Your task to perform on an android device: Search for flights from NYC to San Francisco Image 0: 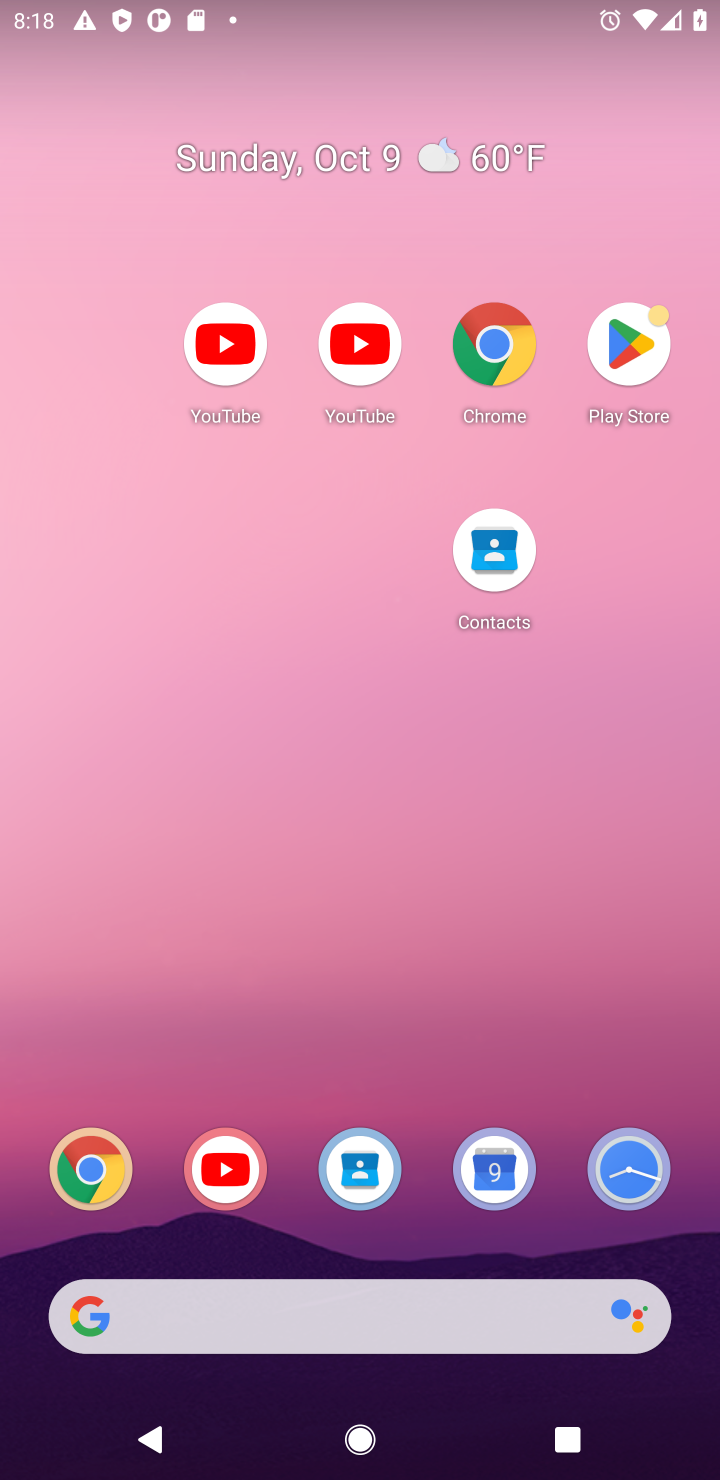
Step 0: drag from (414, 1268) to (464, 294)
Your task to perform on an android device: Search for flights from NYC to San Francisco Image 1: 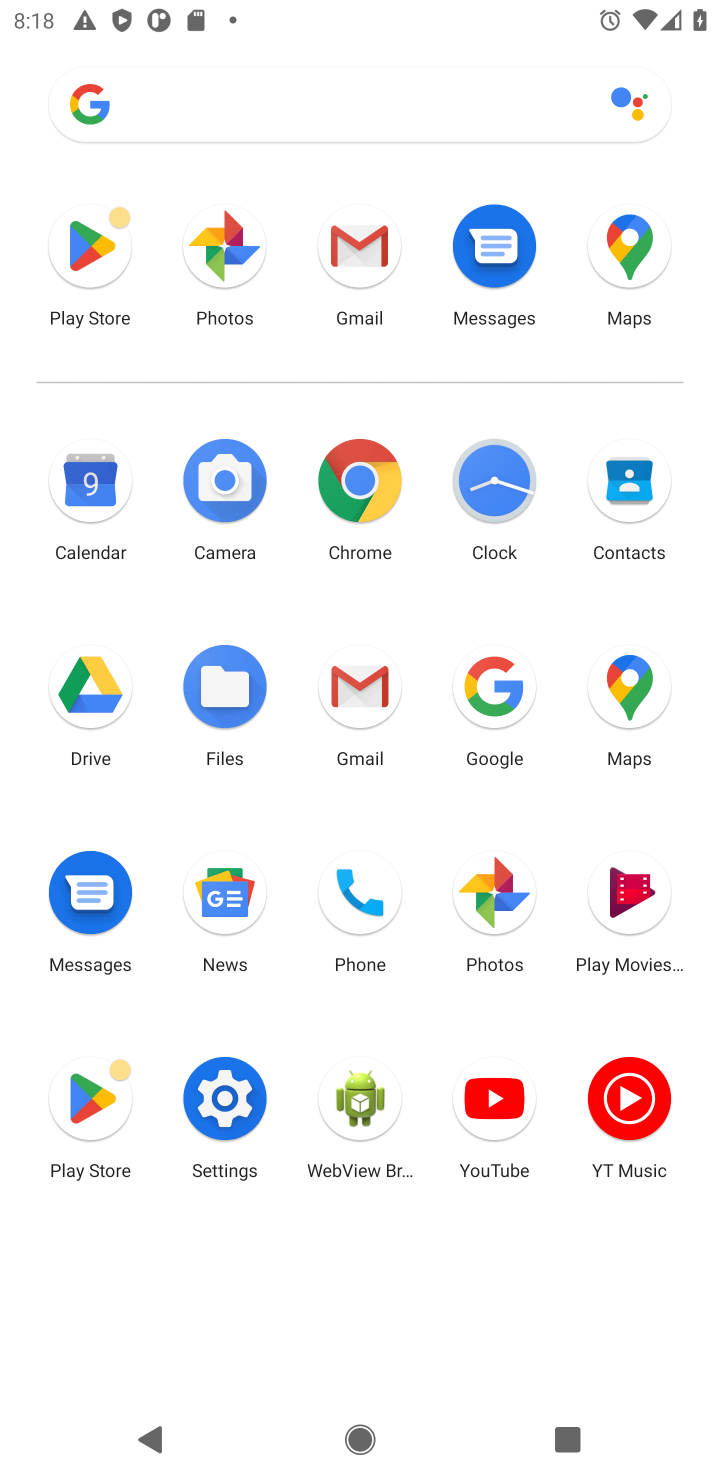
Step 1: click (362, 483)
Your task to perform on an android device: Search for flights from NYC to San Francisco Image 2: 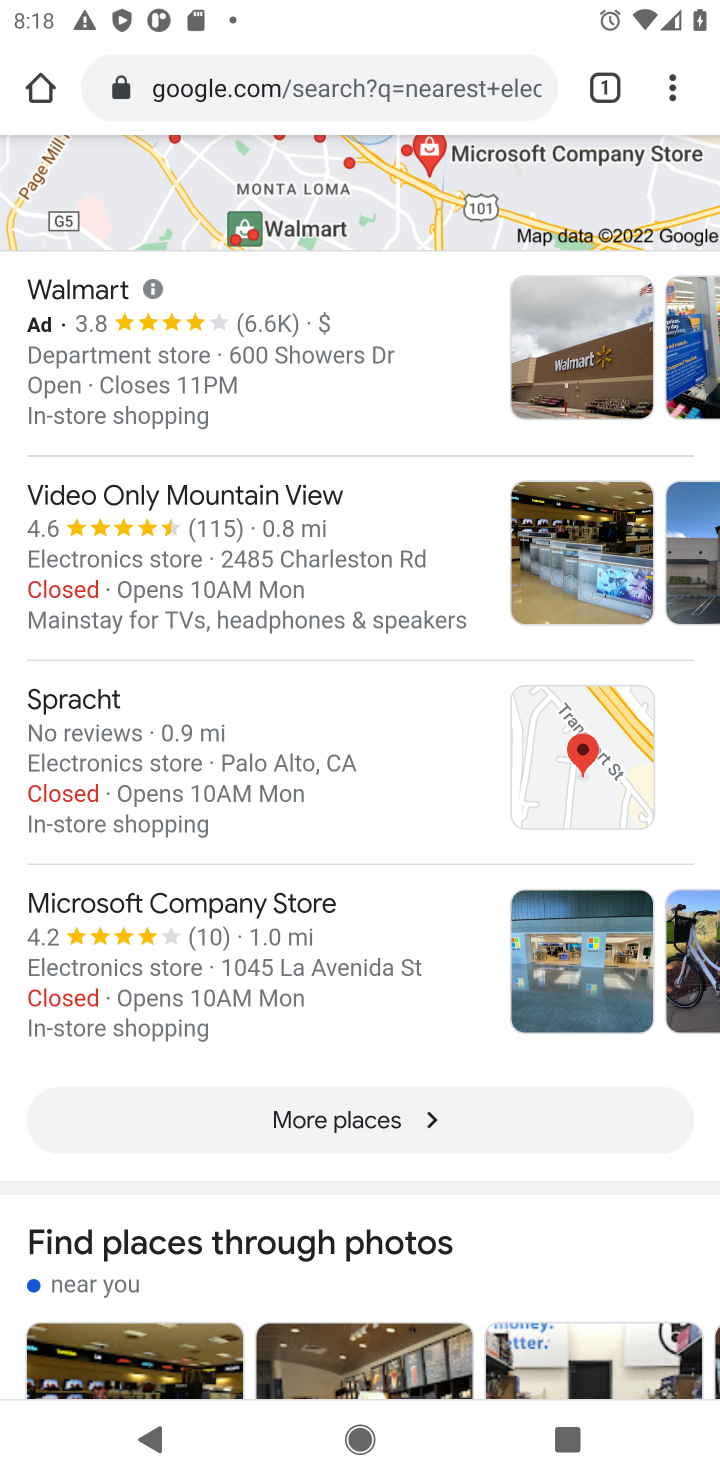
Step 2: click (352, 91)
Your task to perform on an android device: Search for flights from NYC to San Francisco Image 3: 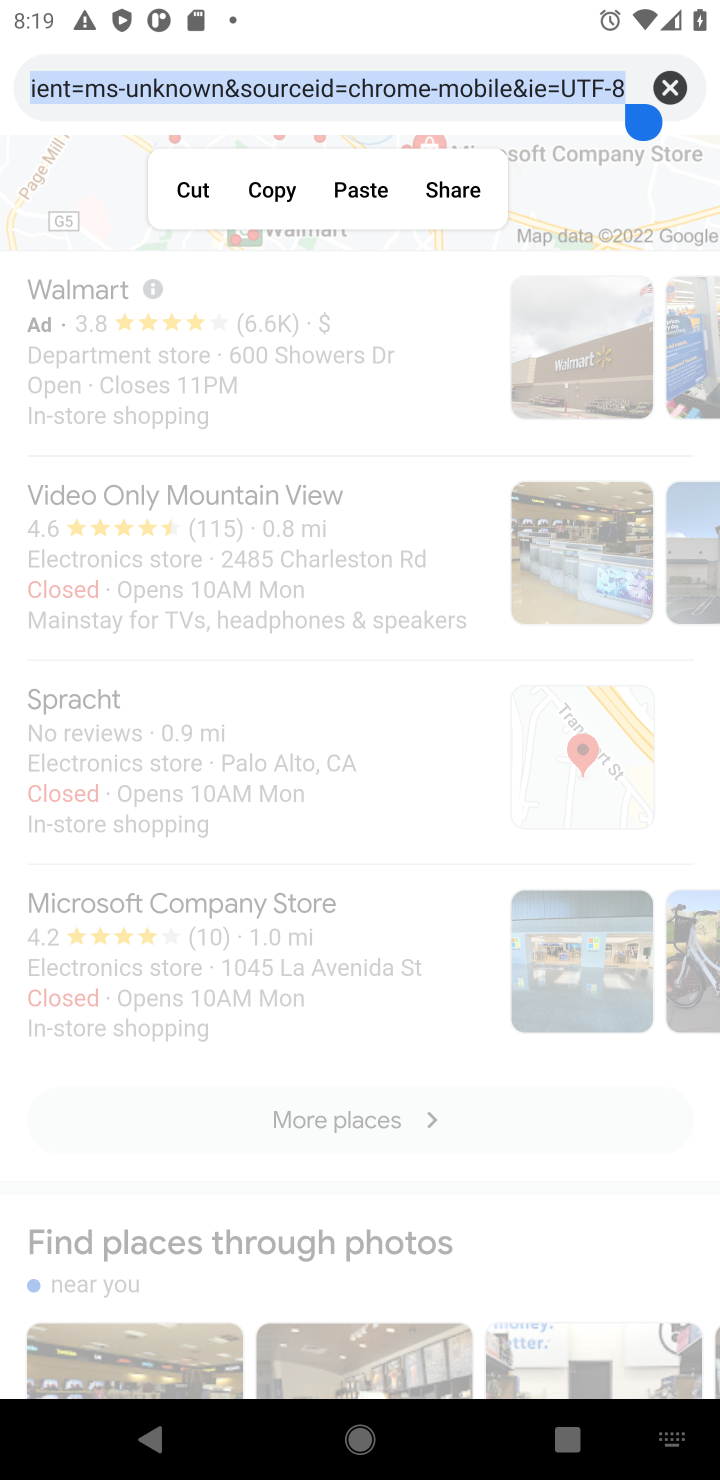
Step 3: type "flights from NYC to San Francisco"
Your task to perform on an android device: Search for flights from NYC to San Francisco Image 4: 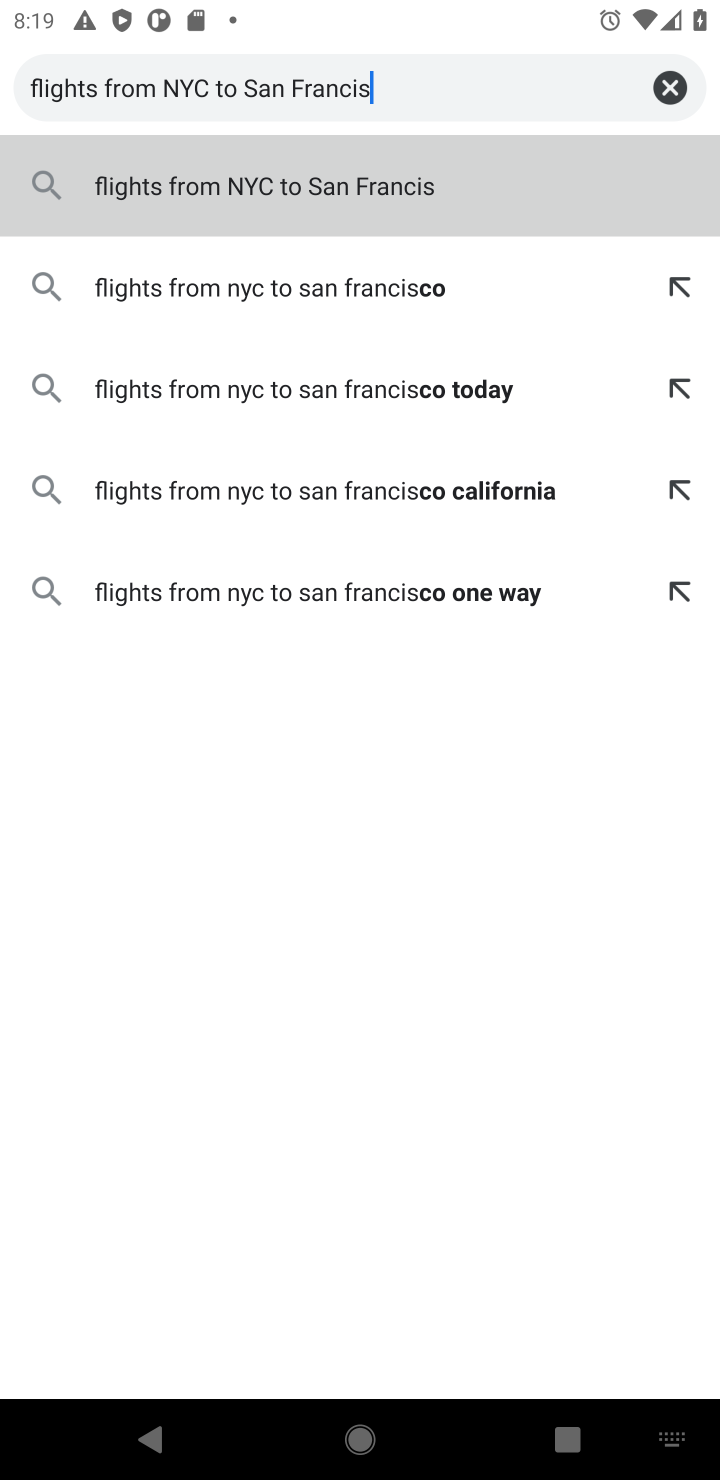
Step 4: press enter
Your task to perform on an android device: Search for flights from NYC to San Francisco Image 5: 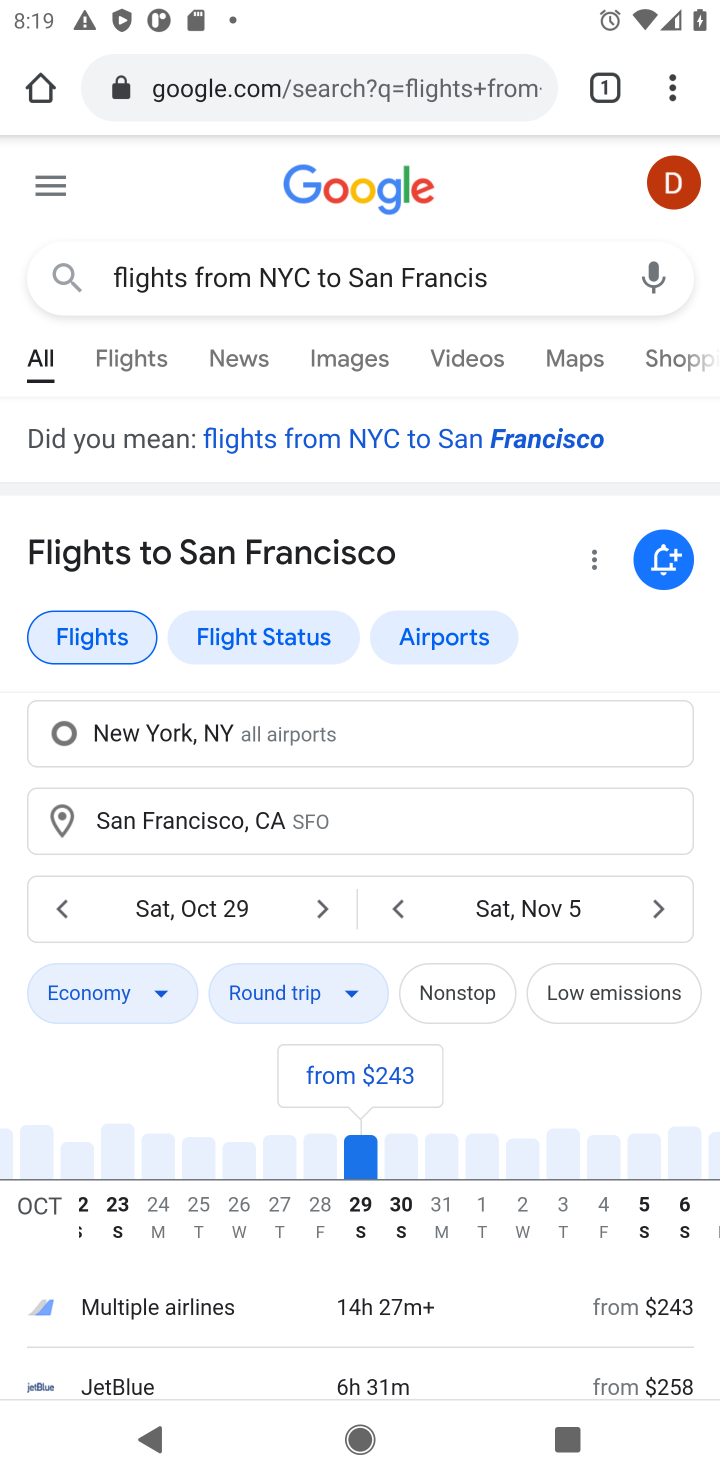
Step 5: task complete